Your task to perform on an android device: Go to Yahoo.com Image 0: 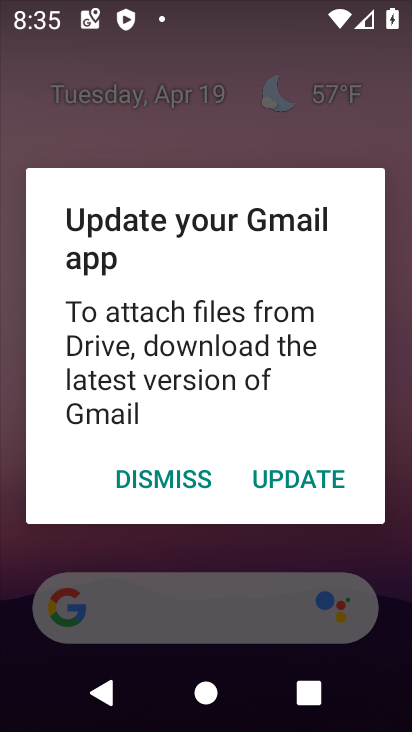
Step 0: press home button
Your task to perform on an android device: Go to Yahoo.com Image 1: 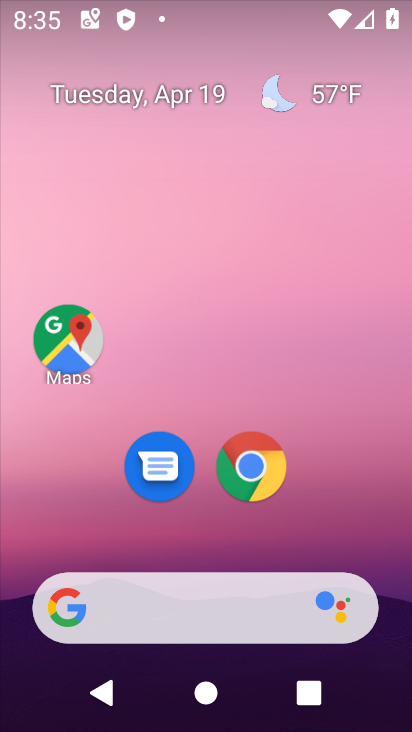
Step 1: click (252, 465)
Your task to perform on an android device: Go to Yahoo.com Image 2: 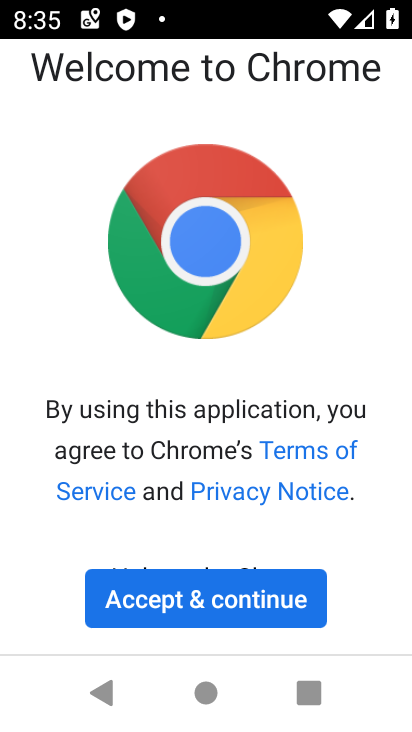
Step 2: click (233, 594)
Your task to perform on an android device: Go to Yahoo.com Image 3: 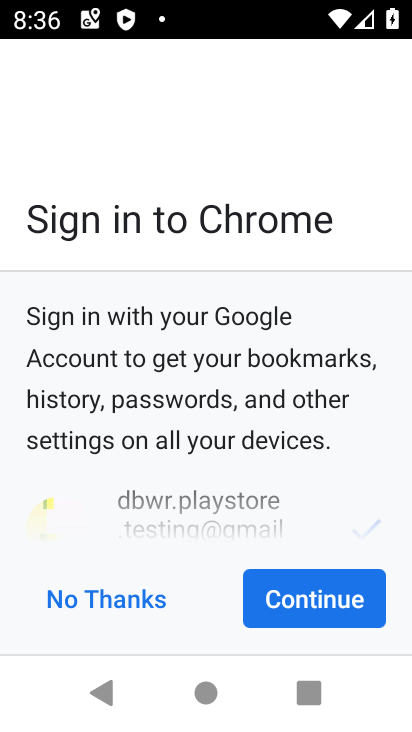
Step 3: click (304, 602)
Your task to perform on an android device: Go to Yahoo.com Image 4: 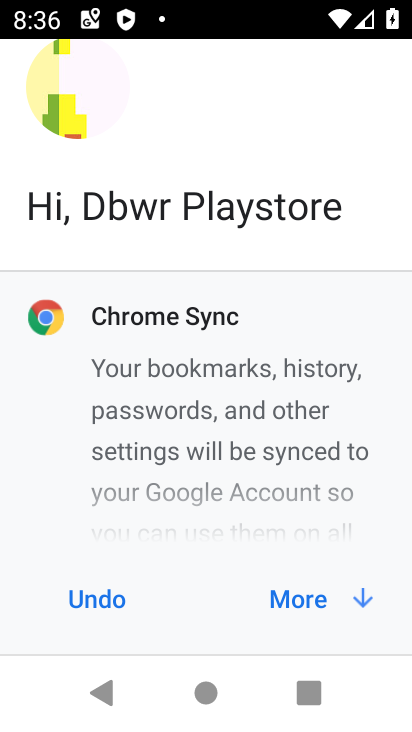
Step 4: click (304, 602)
Your task to perform on an android device: Go to Yahoo.com Image 5: 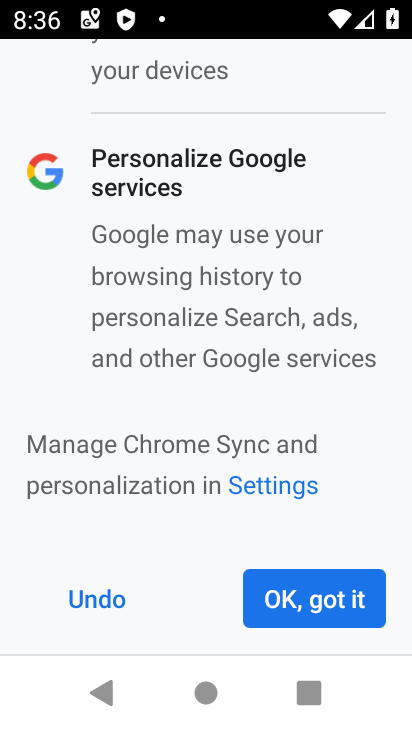
Step 5: click (304, 602)
Your task to perform on an android device: Go to Yahoo.com Image 6: 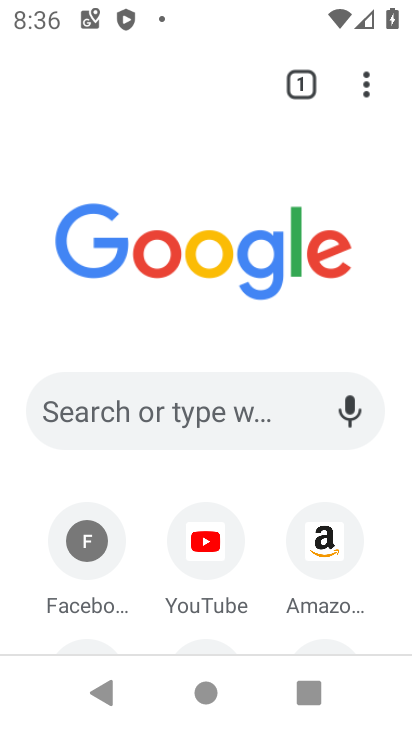
Step 6: drag from (264, 634) to (258, 481)
Your task to perform on an android device: Go to Yahoo.com Image 7: 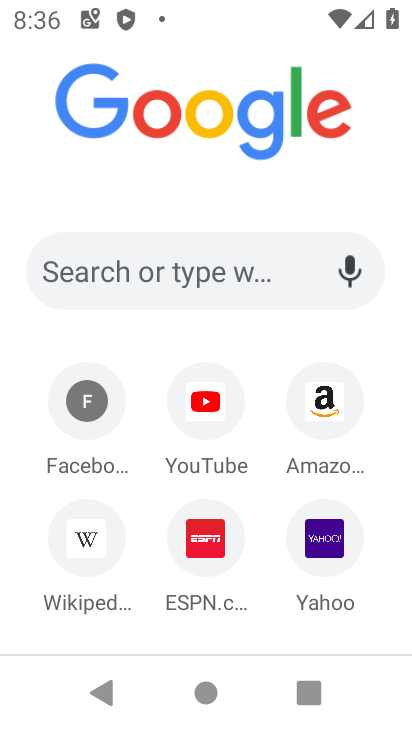
Step 7: click (321, 542)
Your task to perform on an android device: Go to Yahoo.com Image 8: 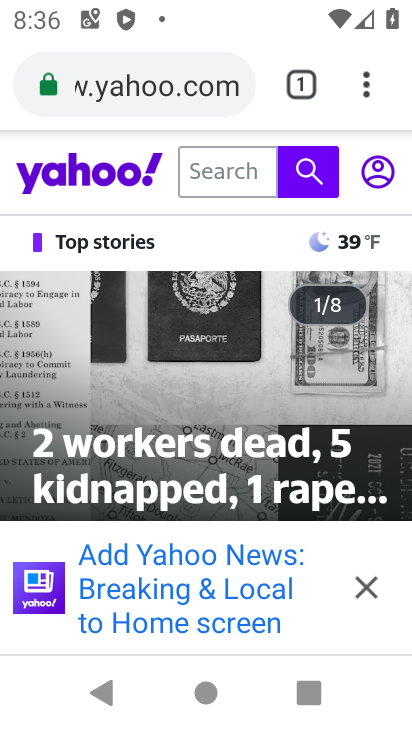
Step 8: task complete